Your task to perform on an android device: What is the recent news? Image 0: 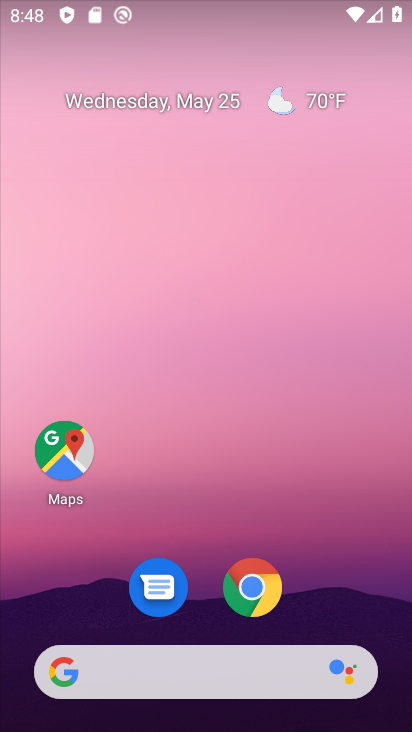
Step 0: drag from (197, 623) to (192, 3)
Your task to perform on an android device: What is the recent news? Image 1: 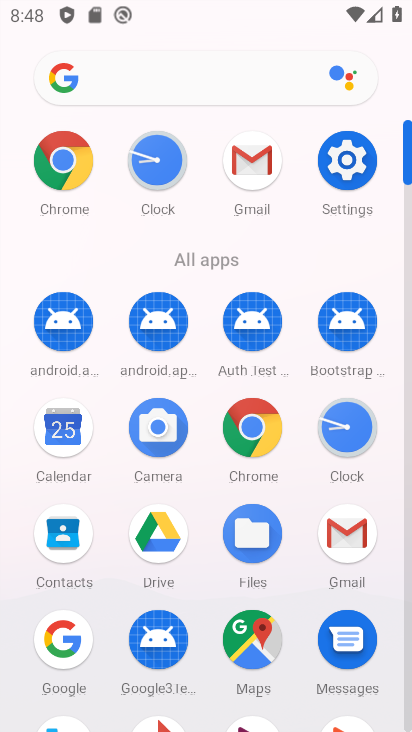
Step 1: click (79, 163)
Your task to perform on an android device: What is the recent news? Image 2: 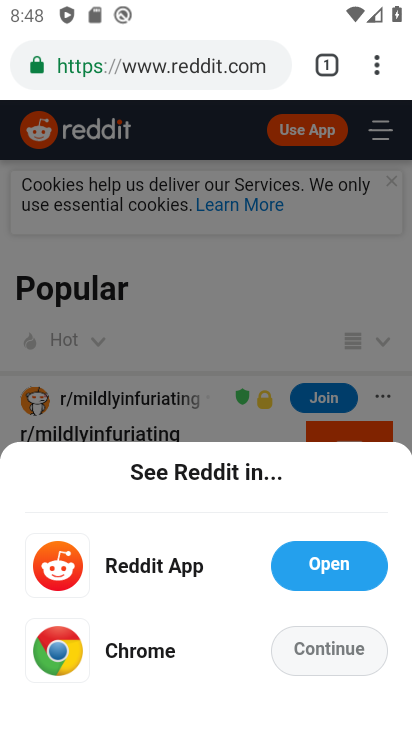
Step 2: click (192, 59)
Your task to perform on an android device: What is the recent news? Image 3: 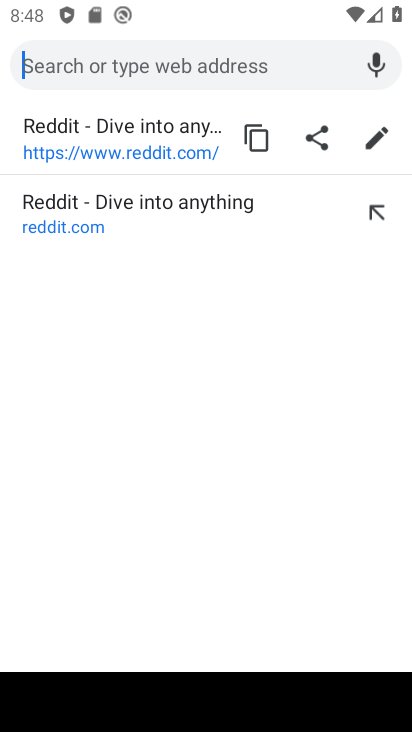
Step 3: type "recent news ?"
Your task to perform on an android device: What is the recent news? Image 4: 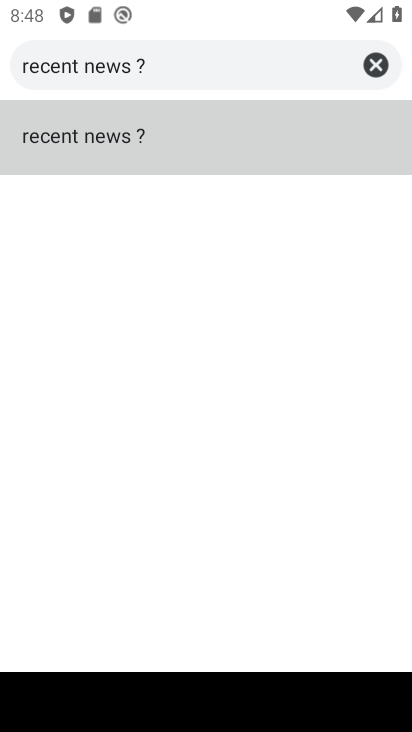
Step 4: click (113, 165)
Your task to perform on an android device: What is the recent news? Image 5: 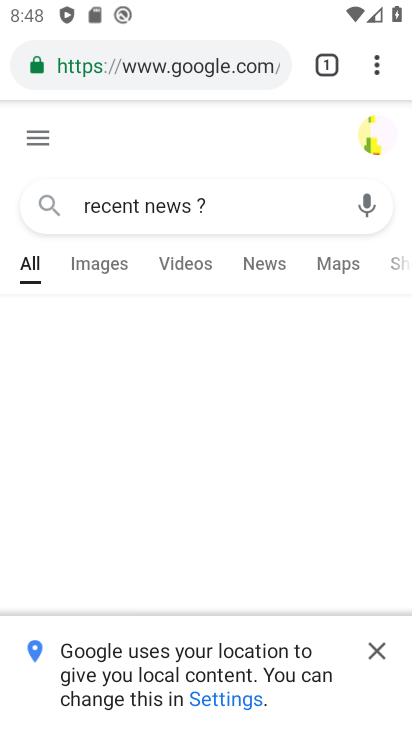
Step 5: click (376, 653)
Your task to perform on an android device: What is the recent news? Image 6: 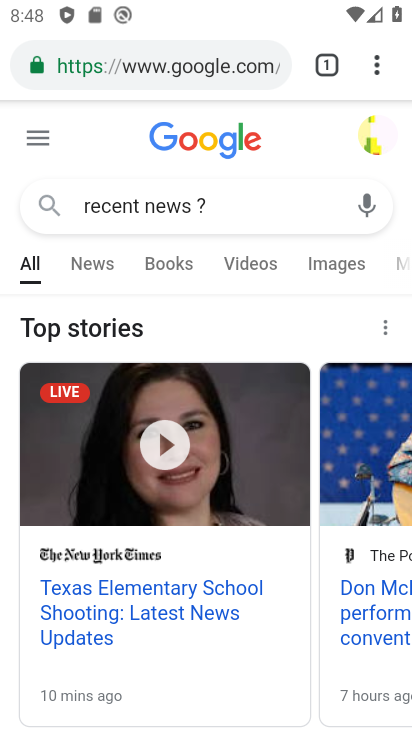
Step 6: task complete